Your task to perform on an android device: Open Google Chrome and open the bookmarks view Image 0: 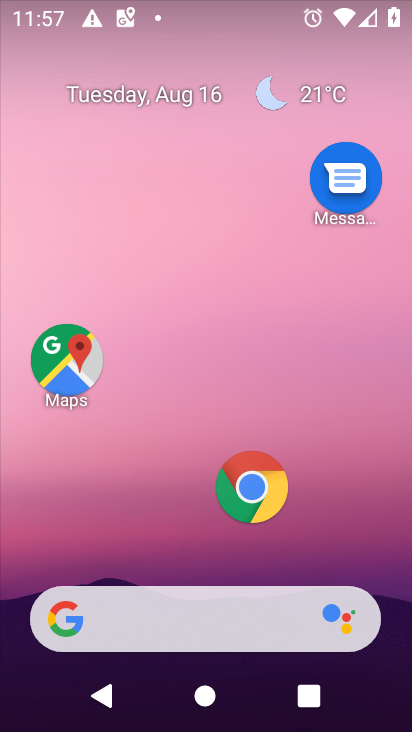
Step 0: click (248, 493)
Your task to perform on an android device: Open Google Chrome and open the bookmarks view Image 1: 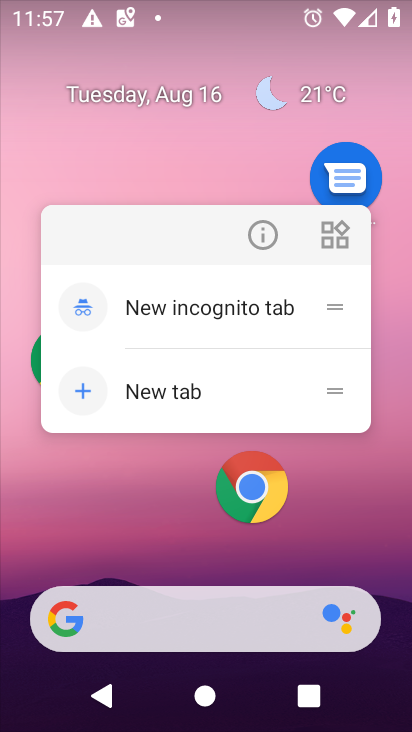
Step 1: click (255, 483)
Your task to perform on an android device: Open Google Chrome and open the bookmarks view Image 2: 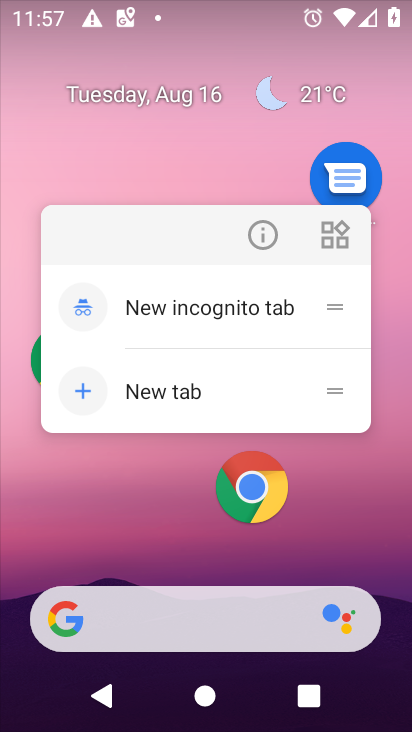
Step 2: click (263, 484)
Your task to perform on an android device: Open Google Chrome and open the bookmarks view Image 3: 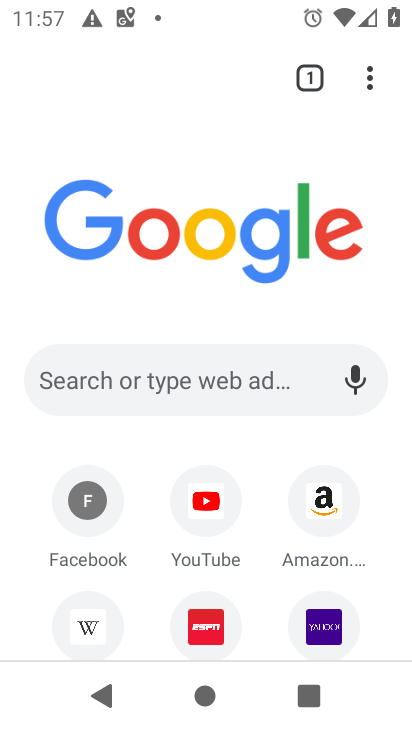
Step 3: task complete